Your task to perform on an android device: Open sound settings Image 0: 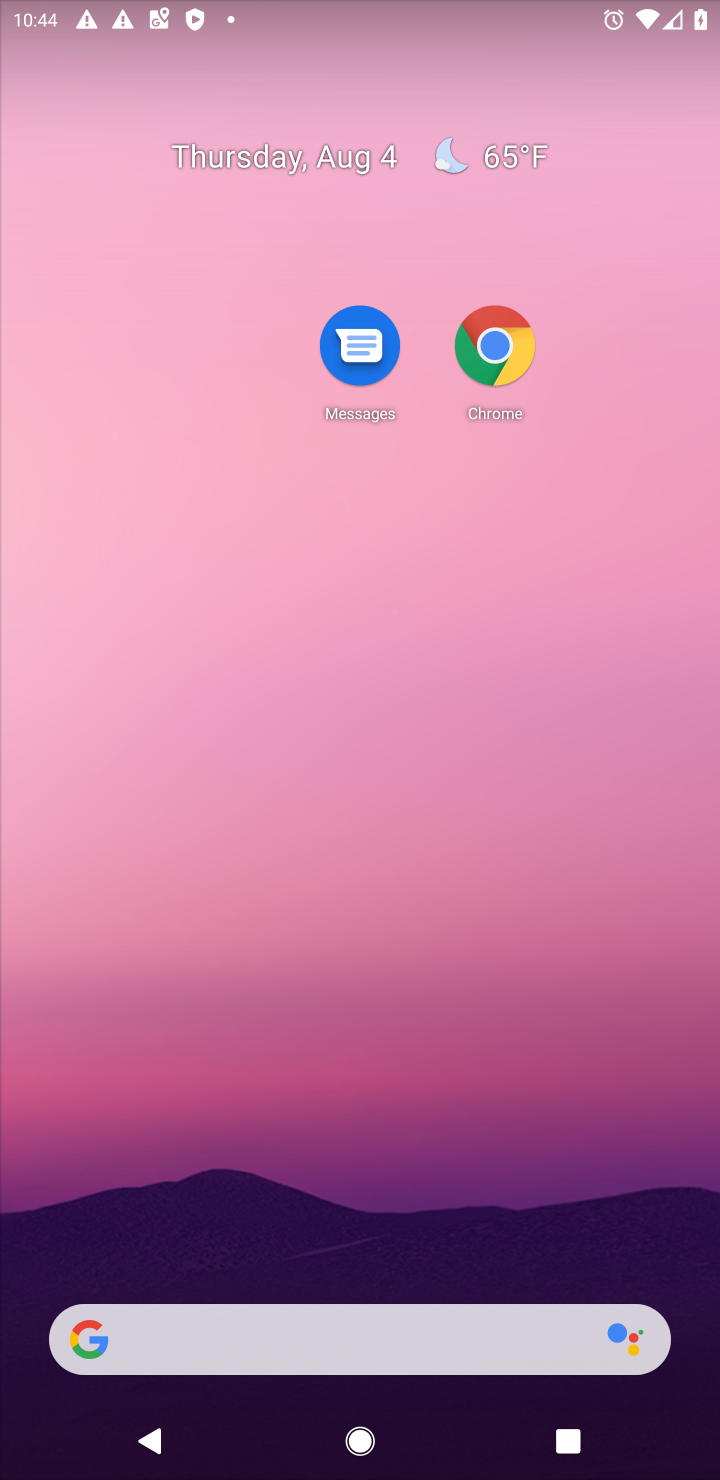
Step 0: drag from (384, 1189) to (584, 18)
Your task to perform on an android device: Open sound settings Image 1: 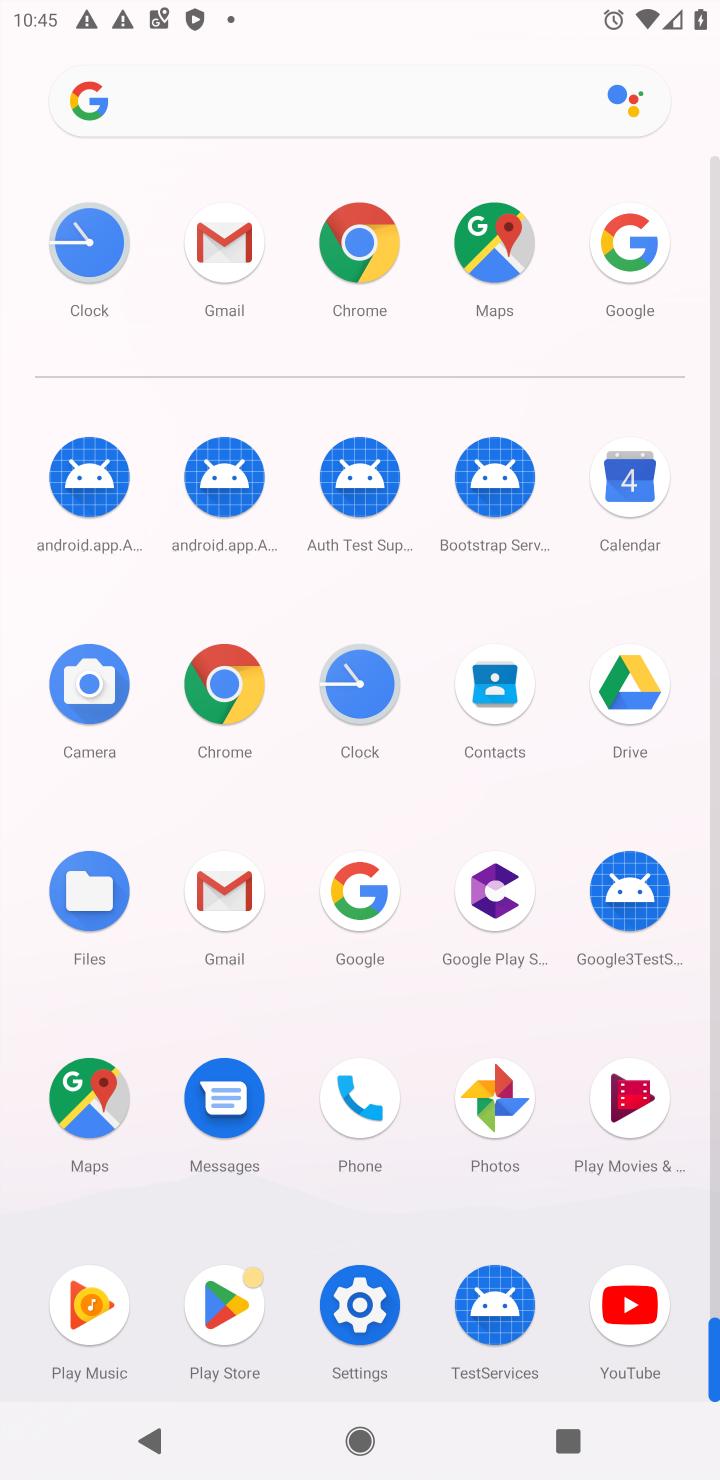
Step 1: click (349, 1310)
Your task to perform on an android device: Open sound settings Image 2: 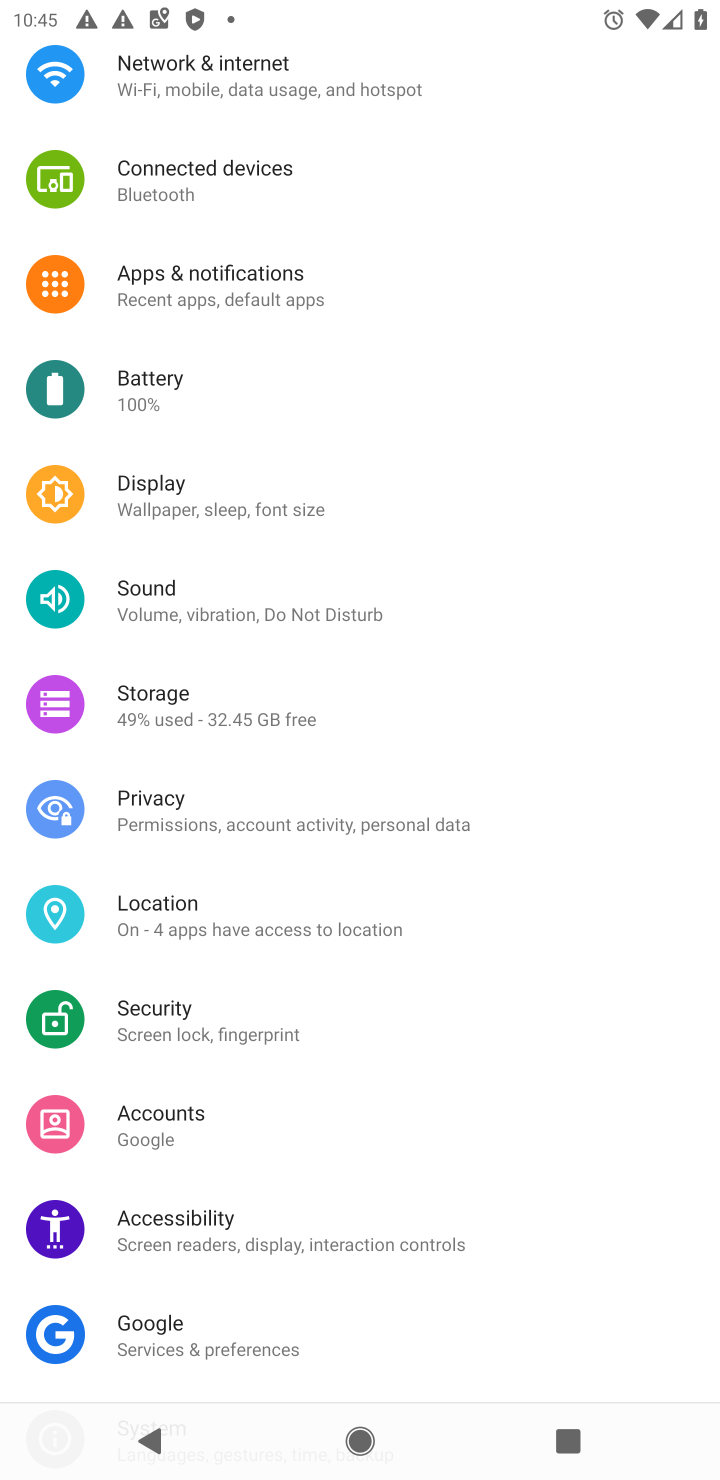
Step 2: click (143, 602)
Your task to perform on an android device: Open sound settings Image 3: 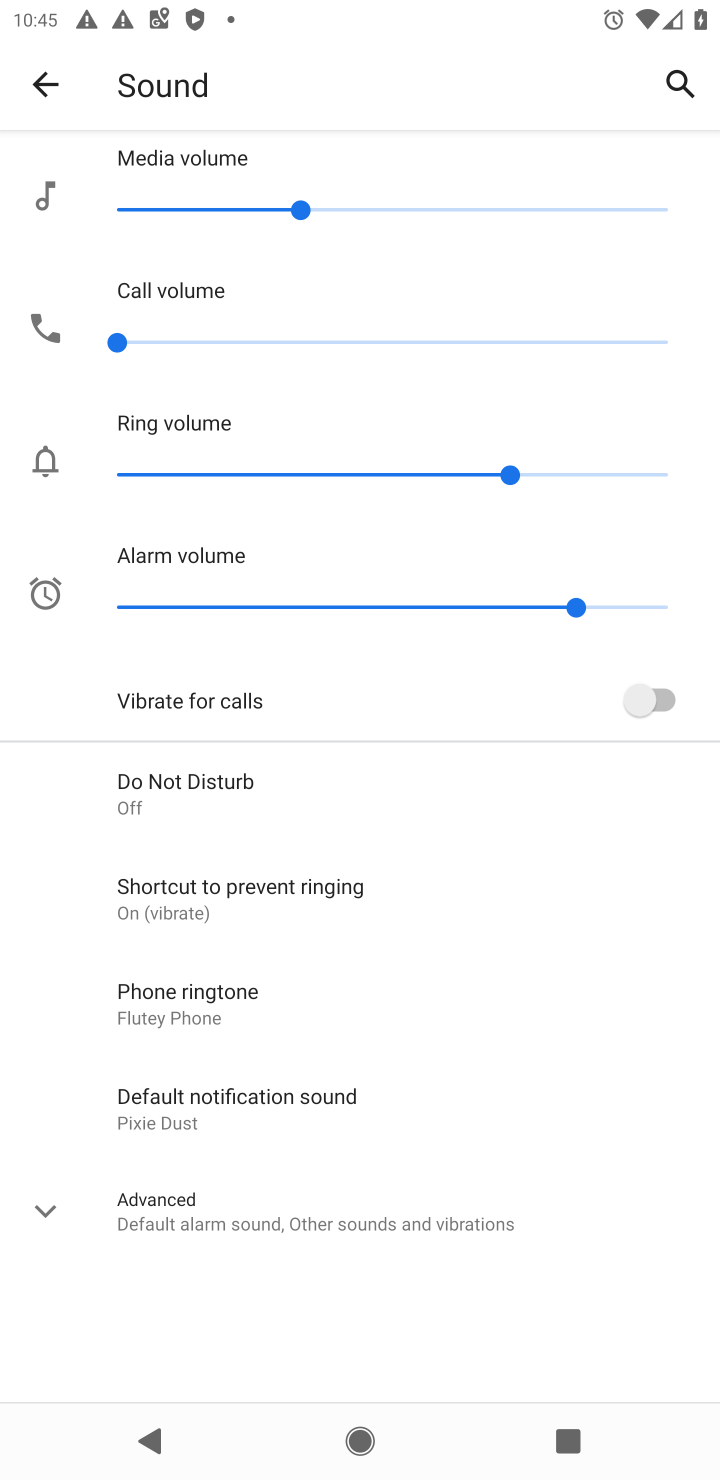
Step 3: task complete